Your task to perform on an android device: empty trash in the gmail app Image 0: 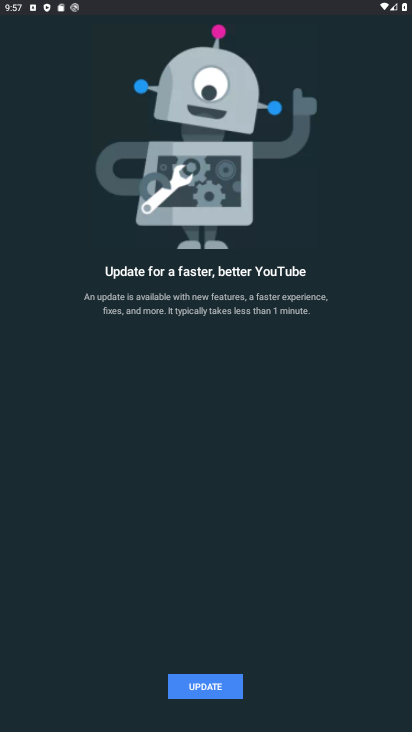
Step 0: press home button
Your task to perform on an android device: empty trash in the gmail app Image 1: 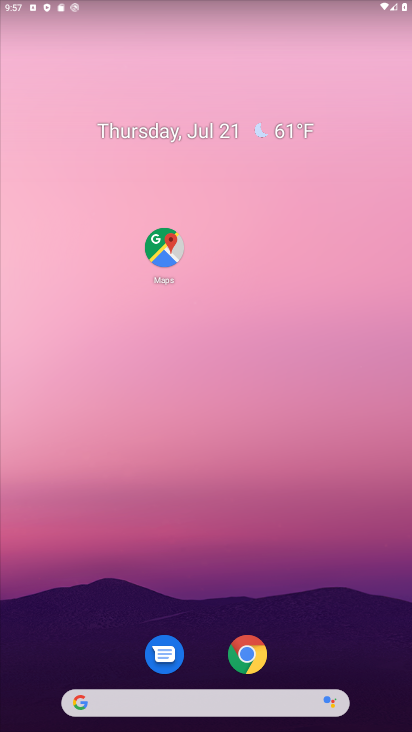
Step 1: drag from (60, 611) to (250, 31)
Your task to perform on an android device: empty trash in the gmail app Image 2: 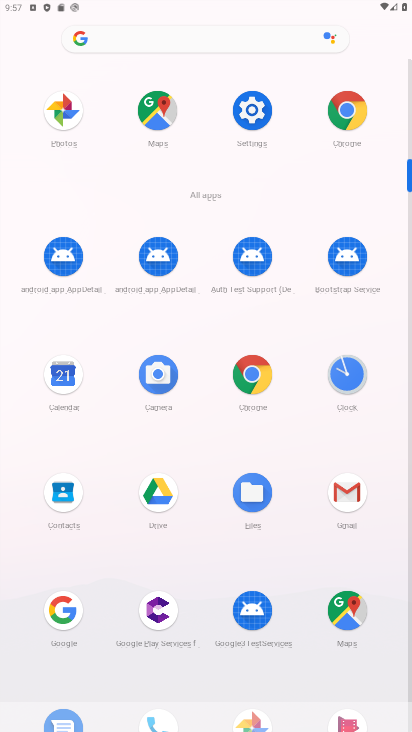
Step 2: click (331, 480)
Your task to perform on an android device: empty trash in the gmail app Image 3: 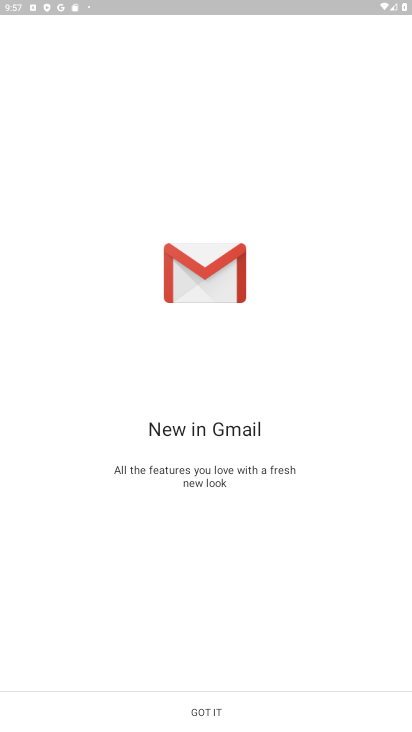
Step 3: click (210, 709)
Your task to perform on an android device: empty trash in the gmail app Image 4: 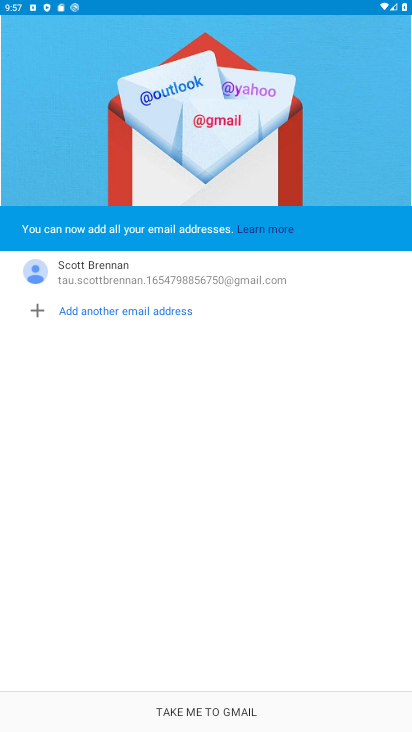
Step 4: click (196, 702)
Your task to perform on an android device: empty trash in the gmail app Image 5: 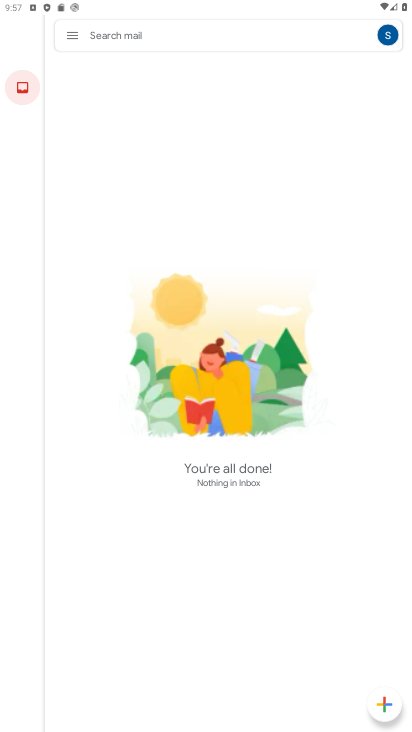
Step 5: click (70, 35)
Your task to perform on an android device: empty trash in the gmail app Image 6: 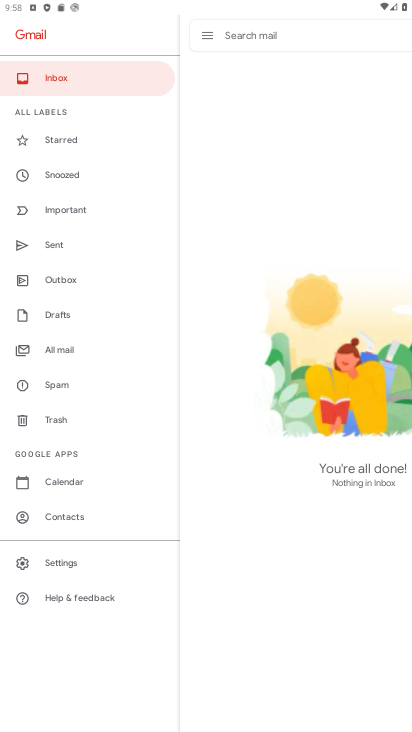
Step 6: click (60, 422)
Your task to perform on an android device: empty trash in the gmail app Image 7: 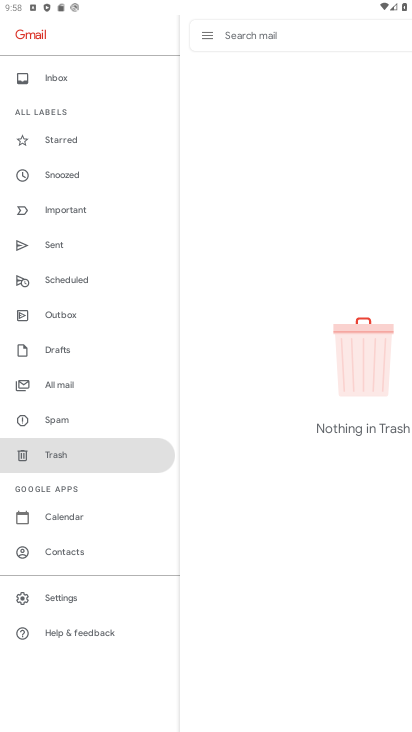
Step 7: task complete